Your task to perform on an android device: Open Amazon Image 0: 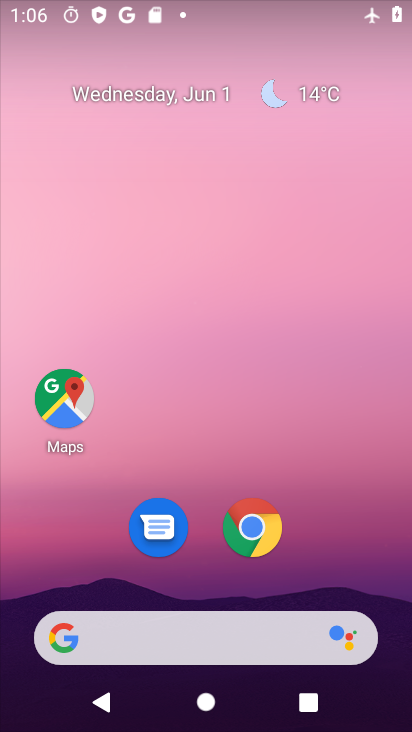
Step 0: drag from (185, 703) to (256, 182)
Your task to perform on an android device: Open Amazon Image 1: 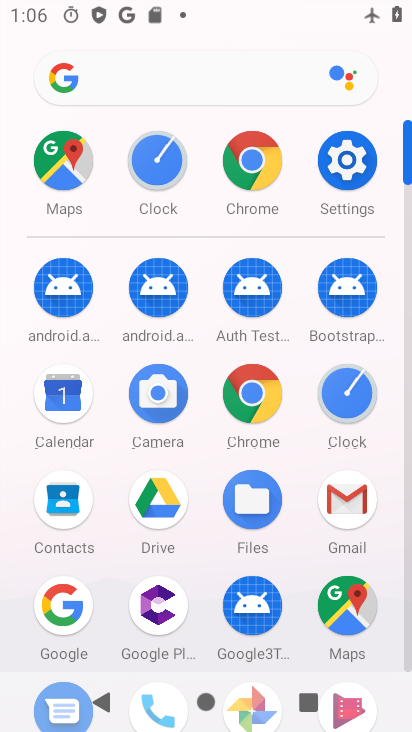
Step 1: click (263, 400)
Your task to perform on an android device: Open Amazon Image 2: 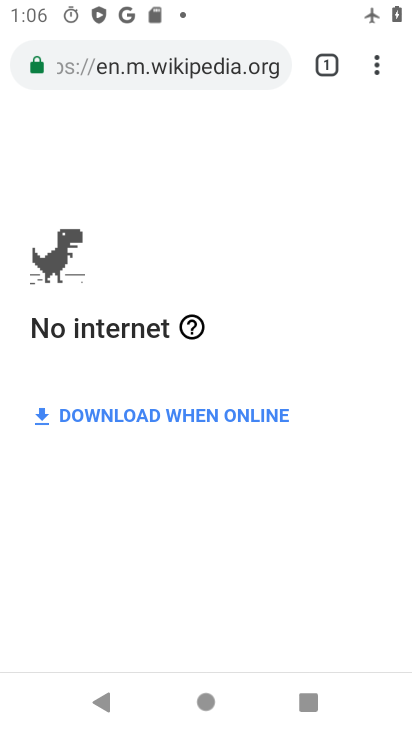
Step 2: click (197, 76)
Your task to perform on an android device: Open Amazon Image 3: 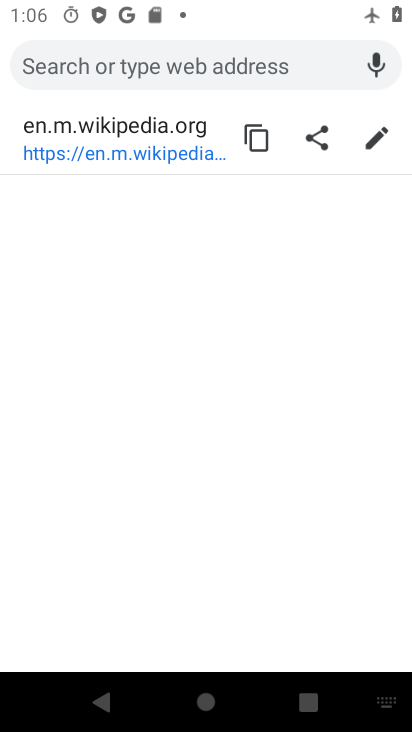
Step 3: type "amazon"
Your task to perform on an android device: Open Amazon Image 4: 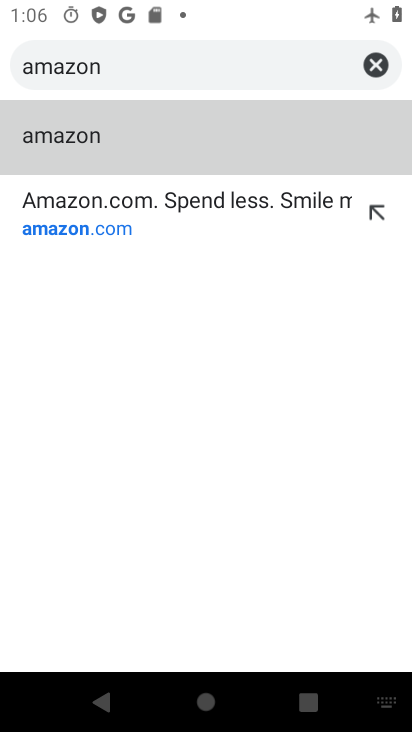
Step 4: click (104, 217)
Your task to perform on an android device: Open Amazon Image 5: 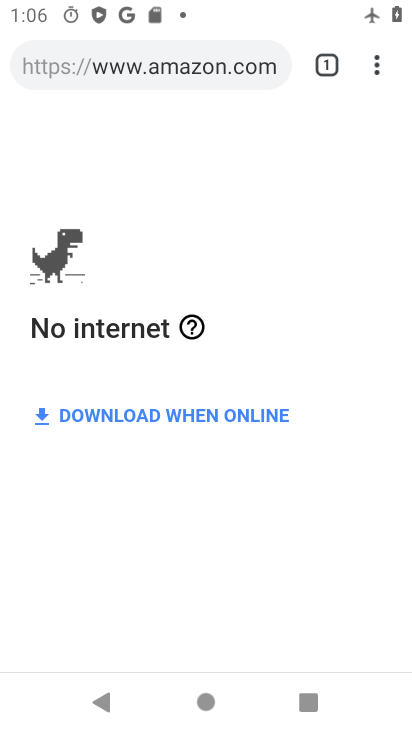
Step 5: task complete